Your task to perform on an android device: find photos in the google photos app Image 0: 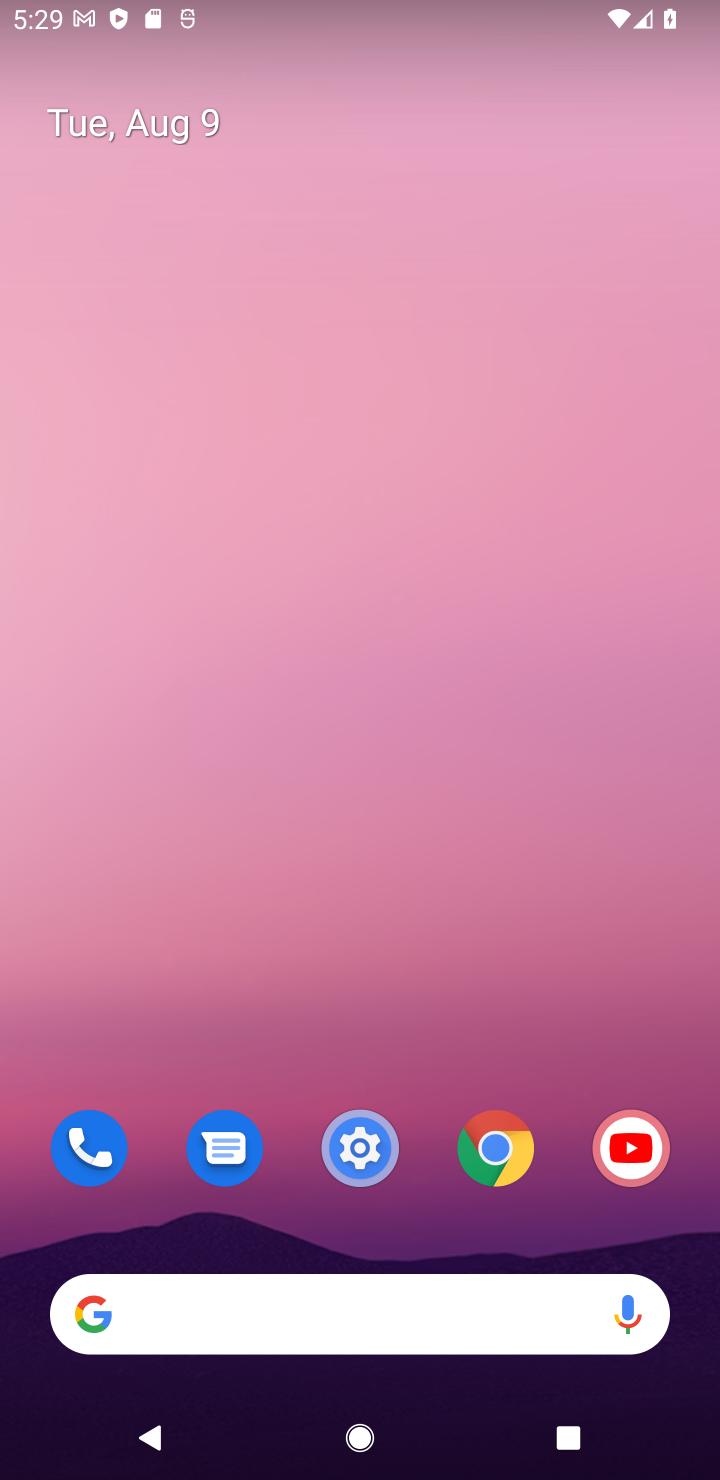
Step 0: drag from (336, 1210) to (365, 44)
Your task to perform on an android device: find photos in the google photos app Image 1: 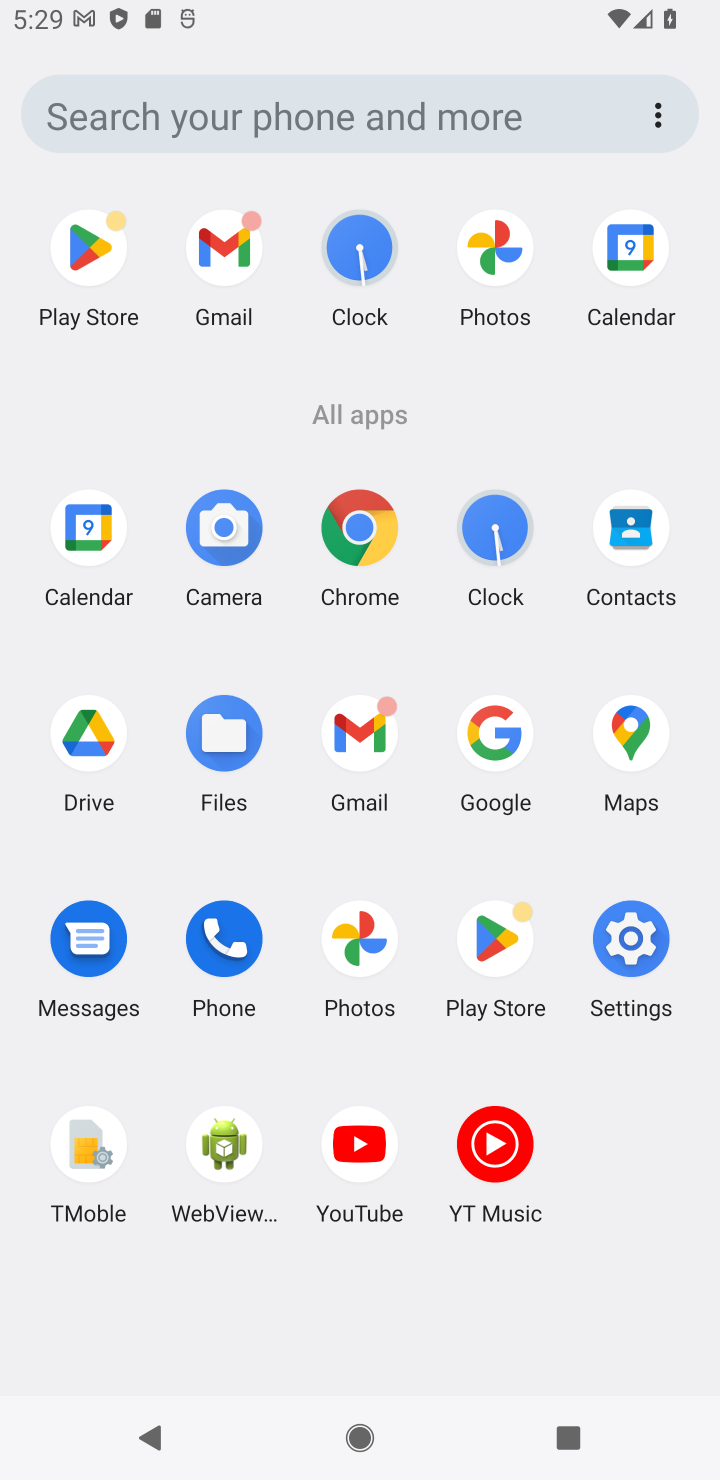
Step 1: click (375, 980)
Your task to perform on an android device: find photos in the google photos app Image 2: 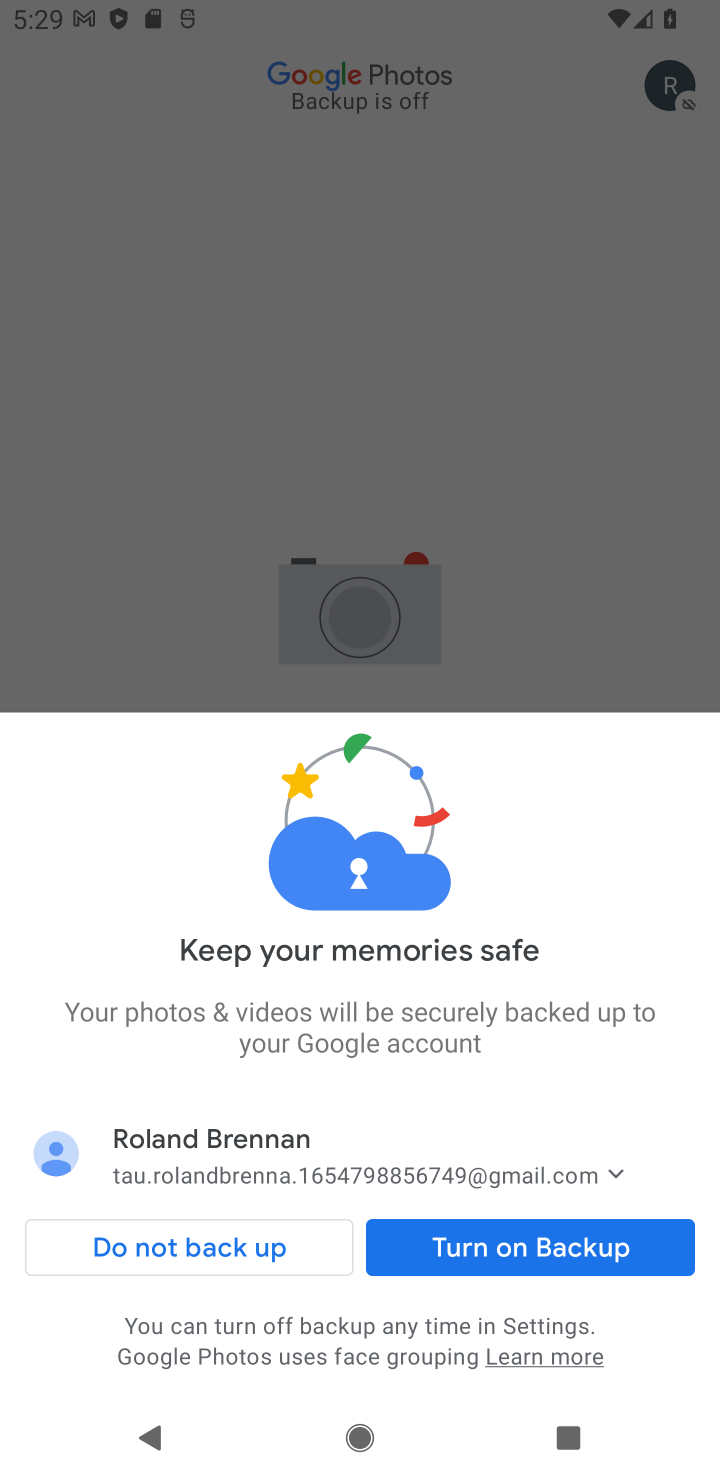
Step 2: click (259, 1245)
Your task to perform on an android device: find photos in the google photos app Image 3: 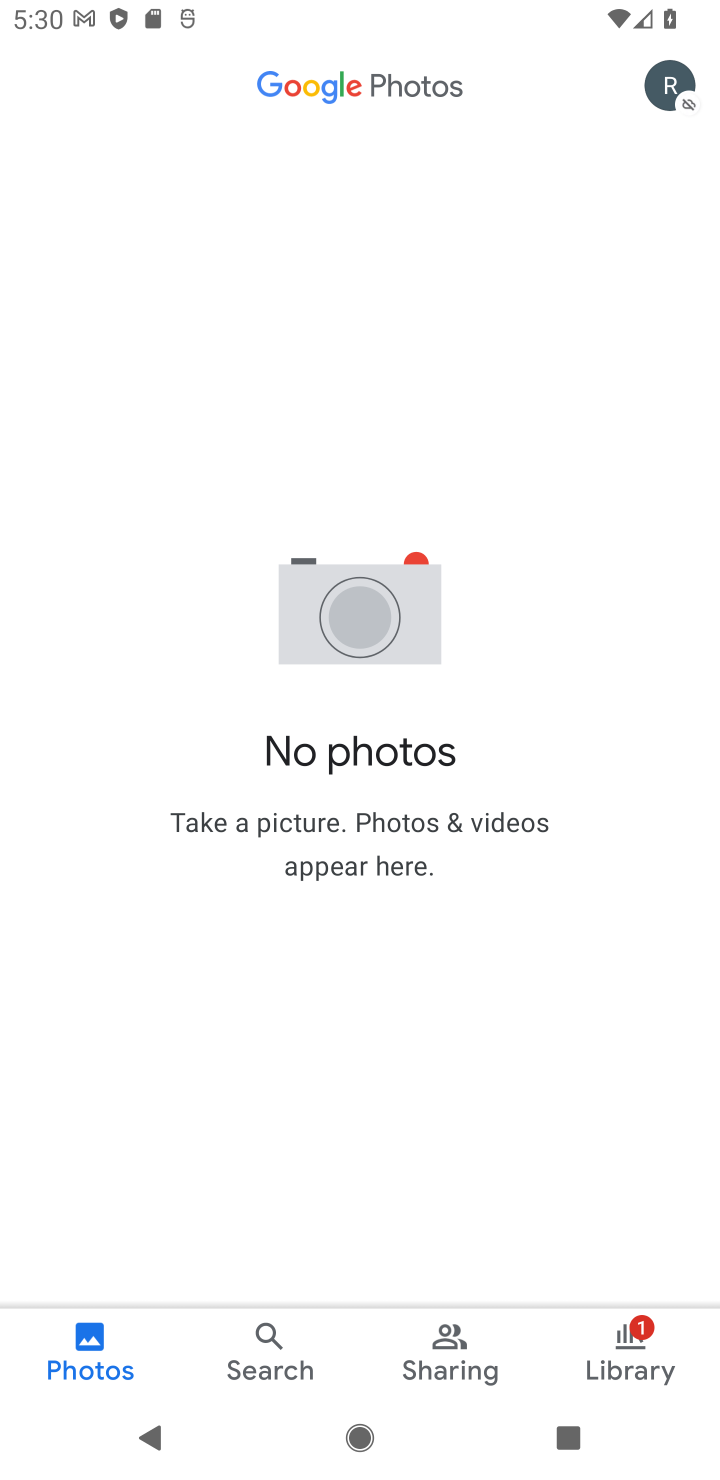
Step 3: task complete